Your task to perform on an android device: Turn on the flashlight Image 0: 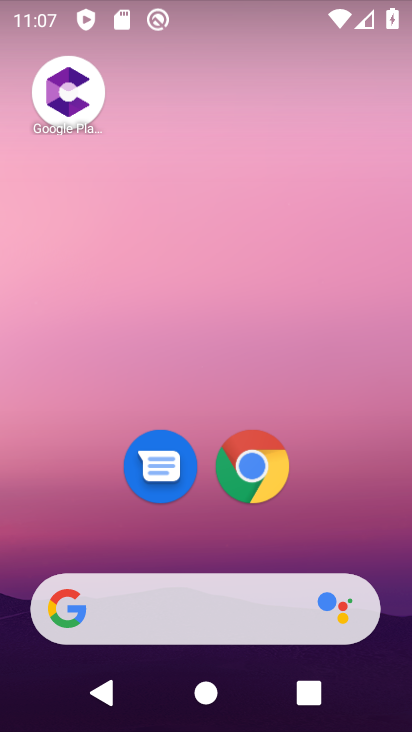
Step 0: drag from (259, 2) to (260, 358)
Your task to perform on an android device: Turn on the flashlight Image 1: 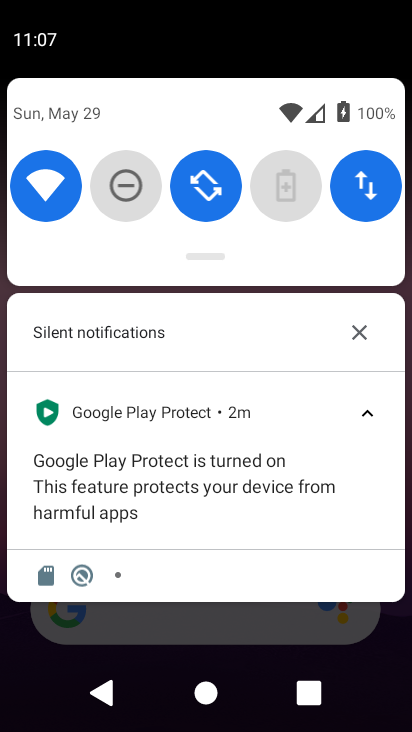
Step 1: task complete